Your task to perform on an android device: Go to Google Image 0: 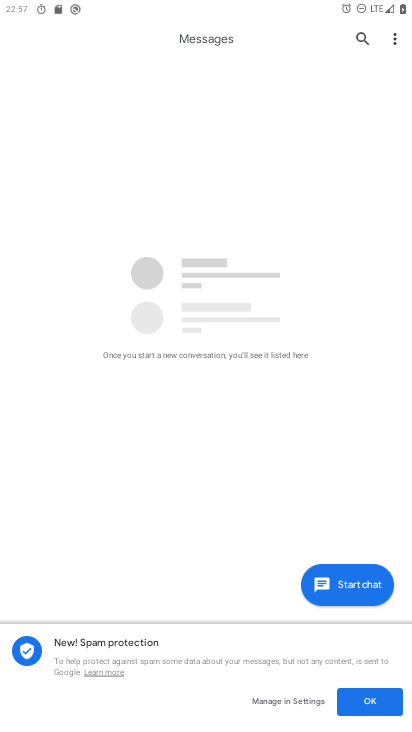
Step 0: drag from (201, 661) to (234, 201)
Your task to perform on an android device: Go to Google Image 1: 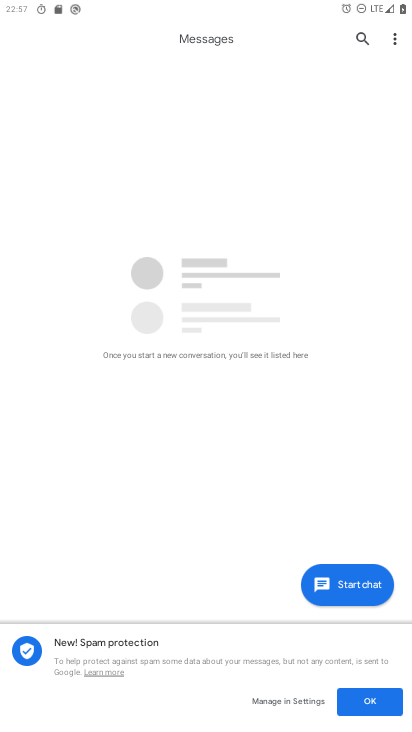
Step 1: press home button
Your task to perform on an android device: Go to Google Image 2: 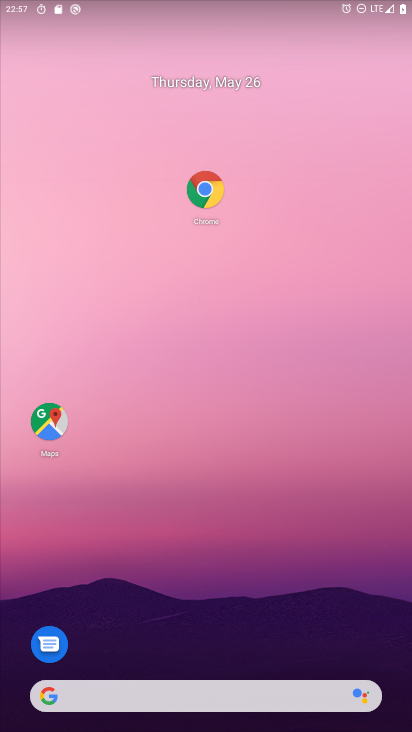
Step 2: drag from (192, 648) to (176, 108)
Your task to perform on an android device: Go to Google Image 3: 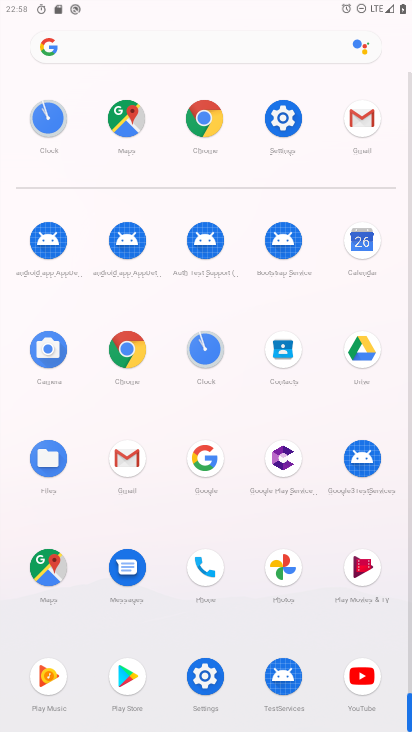
Step 3: click (200, 461)
Your task to perform on an android device: Go to Google Image 4: 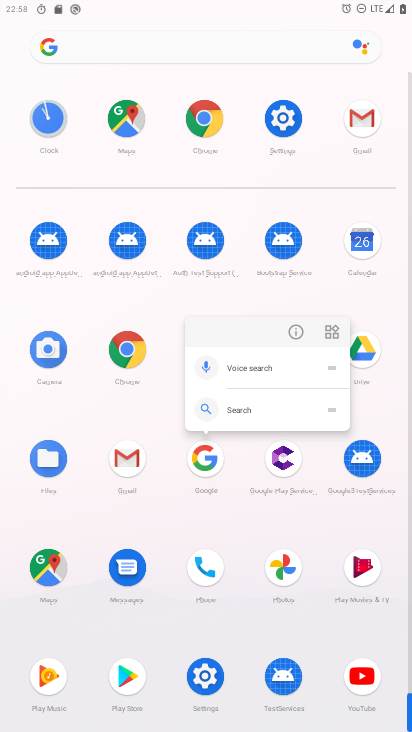
Step 4: click (302, 331)
Your task to perform on an android device: Go to Google Image 5: 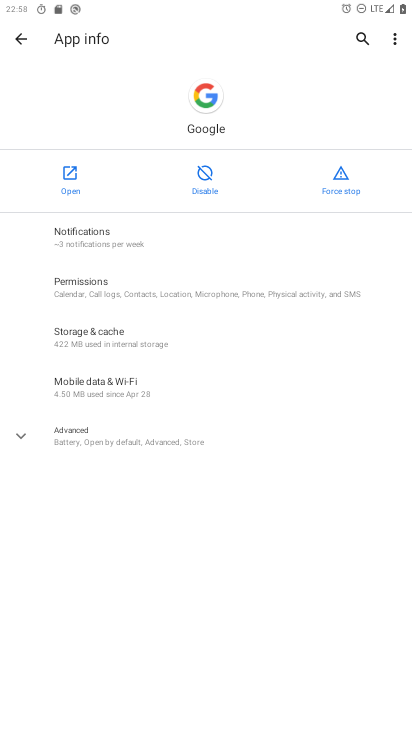
Step 5: click (73, 172)
Your task to perform on an android device: Go to Google Image 6: 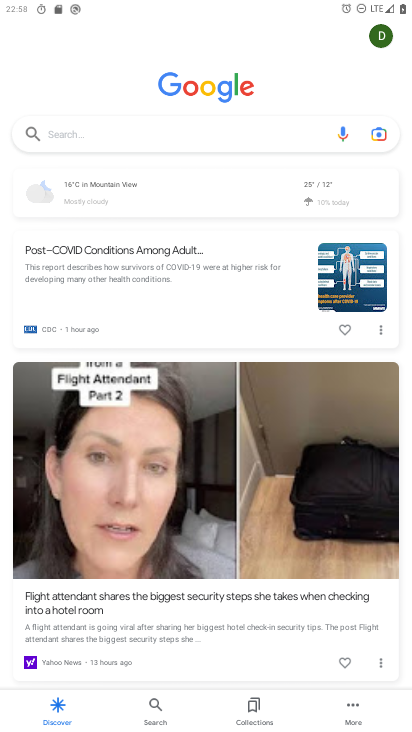
Step 6: task complete